Your task to perform on an android device: Open calendar and show me the fourth week of next month Image 0: 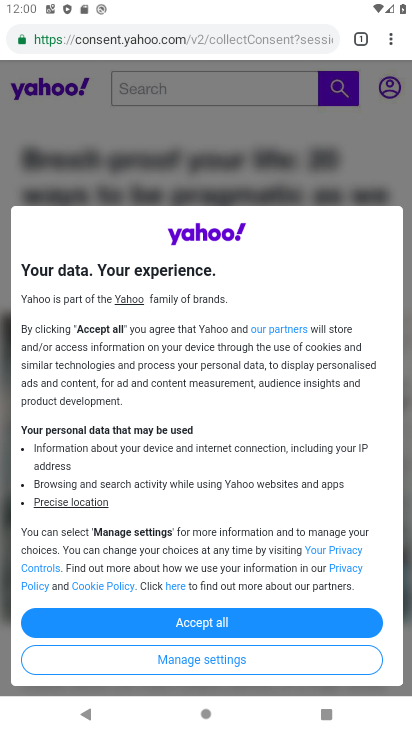
Step 0: press home button
Your task to perform on an android device: Open calendar and show me the fourth week of next month Image 1: 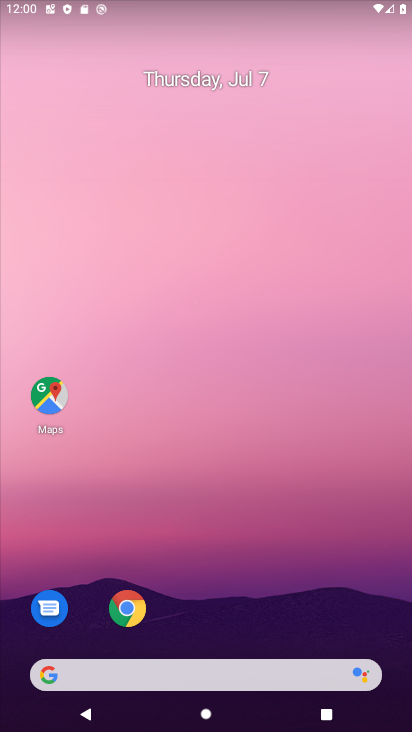
Step 1: drag from (175, 585) to (175, 208)
Your task to perform on an android device: Open calendar and show me the fourth week of next month Image 2: 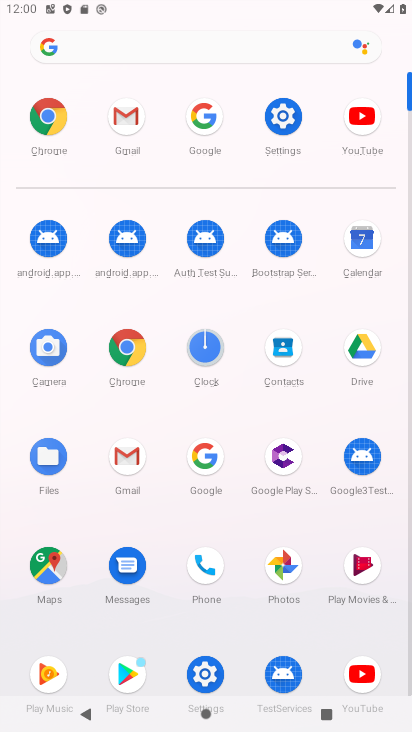
Step 2: click (365, 240)
Your task to perform on an android device: Open calendar and show me the fourth week of next month Image 3: 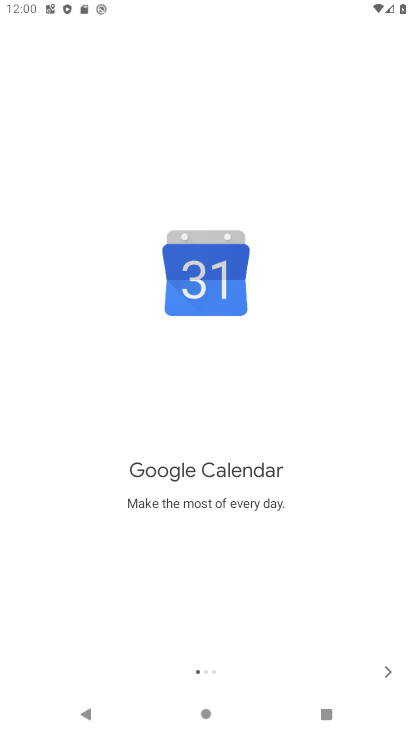
Step 3: click (384, 672)
Your task to perform on an android device: Open calendar and show me the fourth week of next month Image 4: 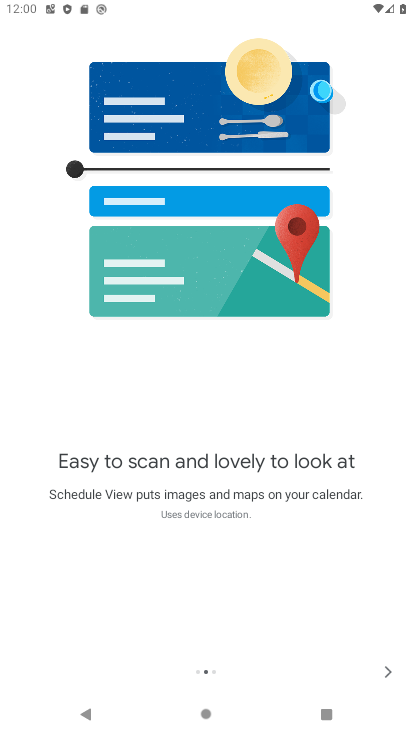
Step 4: click (384, 672)
Your task to perform on an android device: Open calendar and show me the fourth week of next month Image 5: 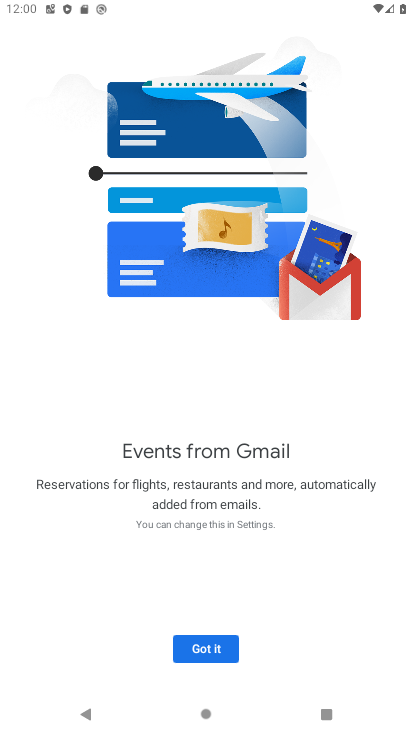
Step 5: click (205, 650)
Your task to perform on an android device: Open calendar and show me the fourth week of next month Image 6: 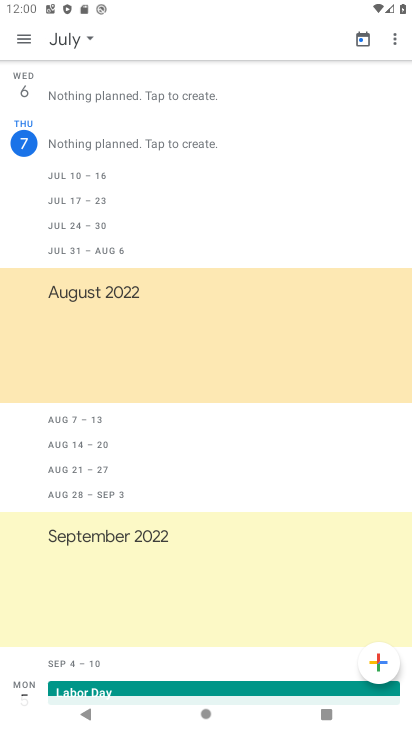
Step 6: click (67, 38)
Your task to perform on an android device: Open calendar and show me the fourth week of next month Image 7: 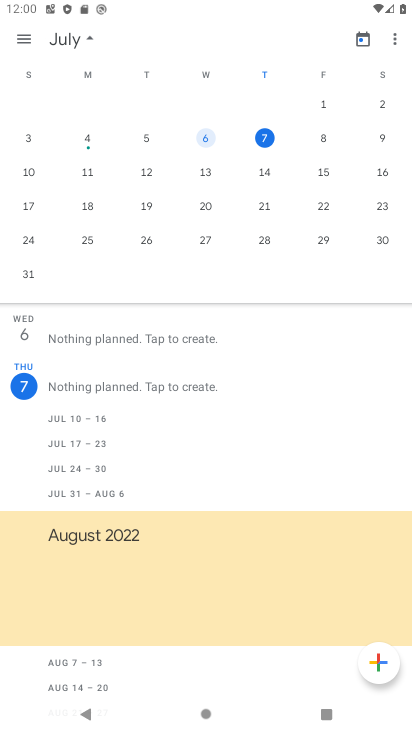
Step 7: drag from (362, 208) to (9, 194)
Your task to perform on an android device: Open calendar and show me the fourth week of next month Image 8: 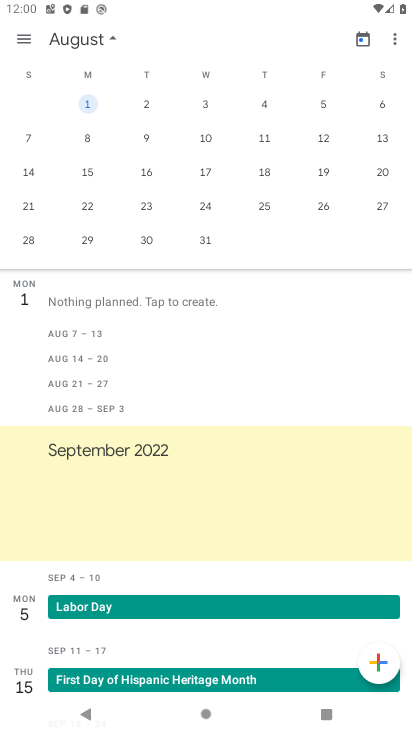
Step 8: click (23, 209)
Your task to perform on an android device: Open calendar and show me the fourth week of next month Image 9: 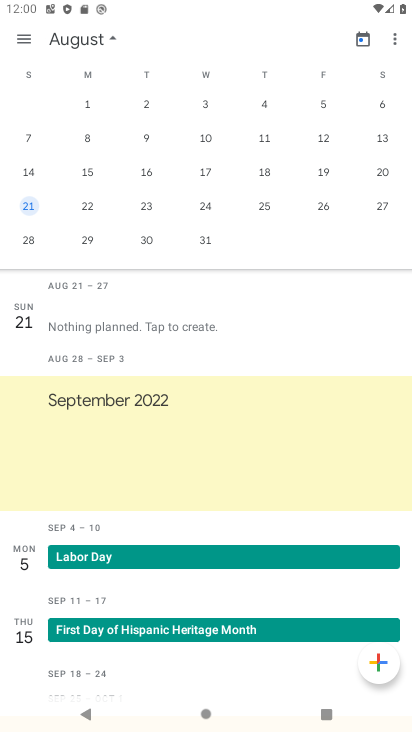
Step 9: task complete